Your task to perform on an android device: Open calendar and show me the third week of next month Image 0: 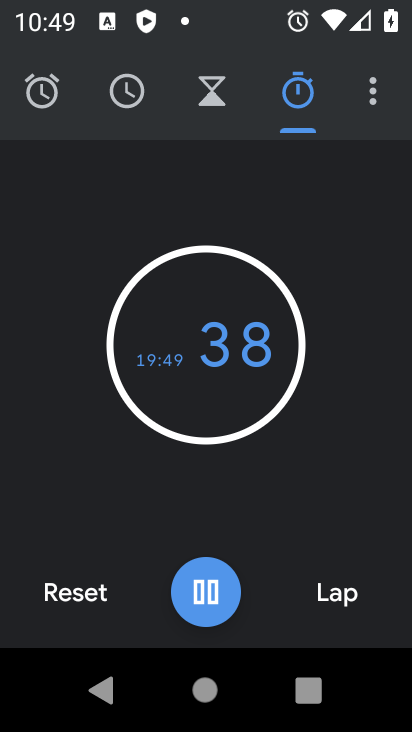
Step 0: press home button
Your task to perform on an android device: Open calendar and show me the third week of next month Image 1: 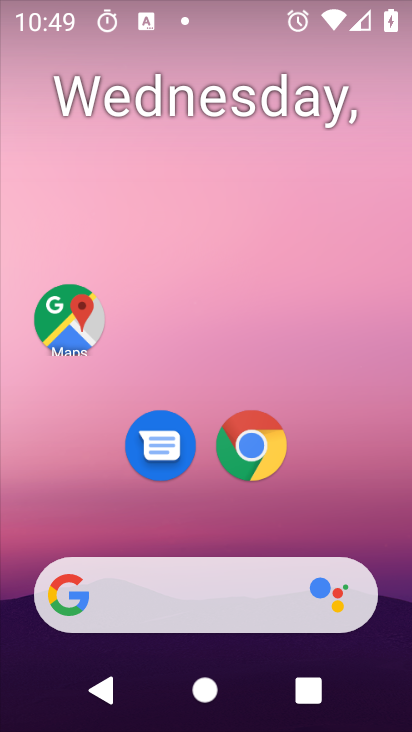
Step 1: drag from (316, 570) to (309, 50)
Your task to perform on an android device: Open calendar and show me the third week of next month Image 2: 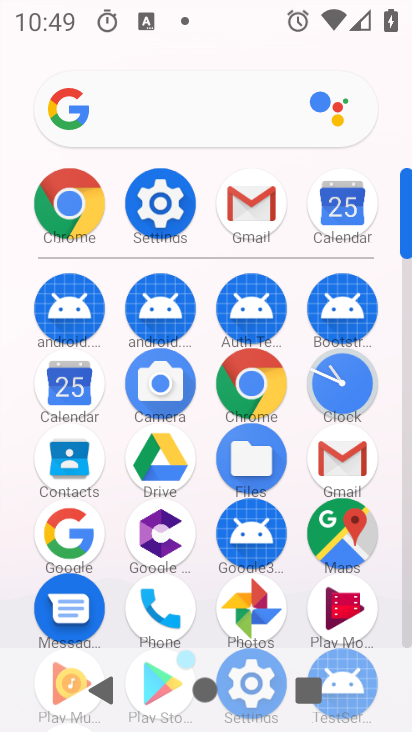
Step 2: click (59, 403)
Your task to perform on an android device: Open calendar and show me the third week of next month Image 3: 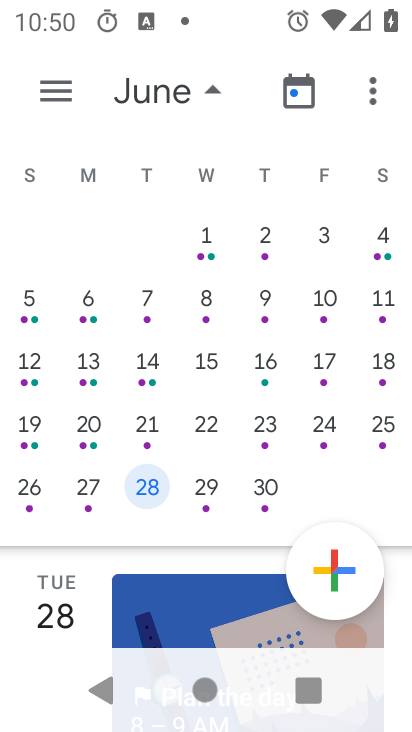
Step 3: click (145, 423)
Your task to perform on an android device: Open calendar and show me the third week of next month Image 4: 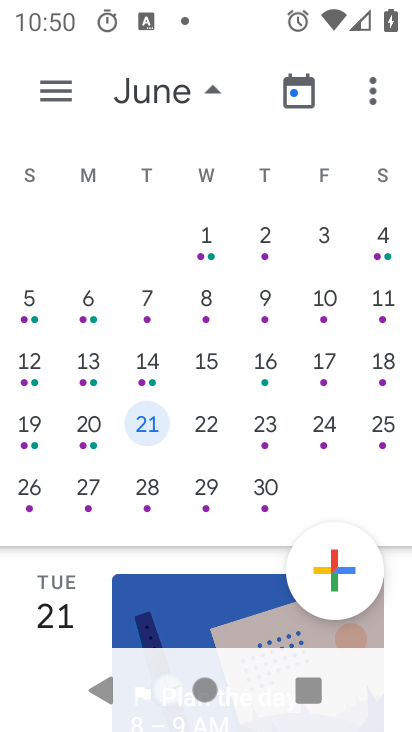
Step 4: task complete